Your task to perform on an android device: Go to Google Image 0: 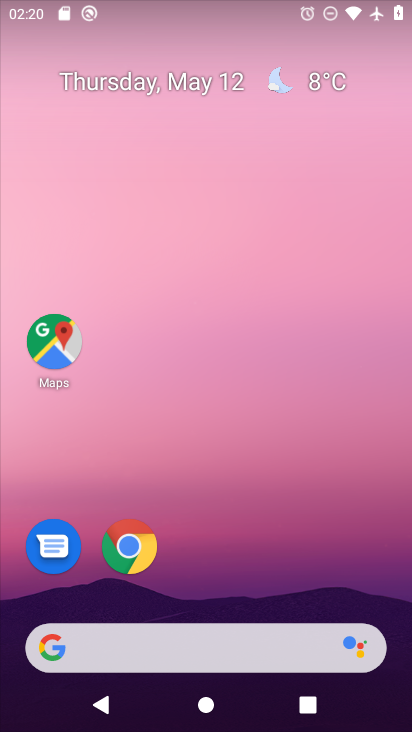
Step 0: drag from (194, 591) to (326, 159)
Your task to perform on an android device: Go to Google Image 1: 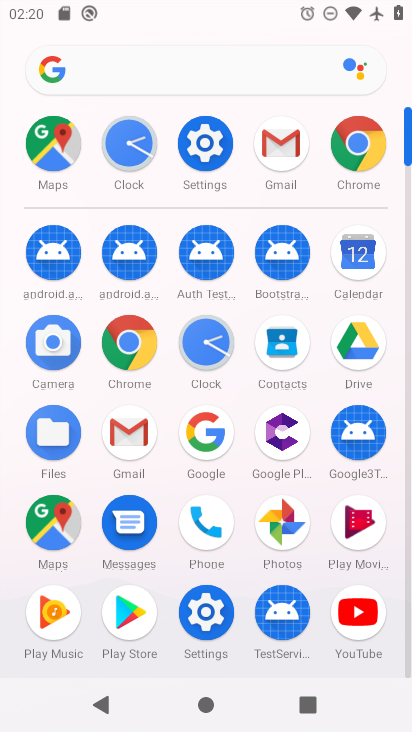
Step 1: click (213, 437)
Your task to perform on an android device: Go to Google Image 2: 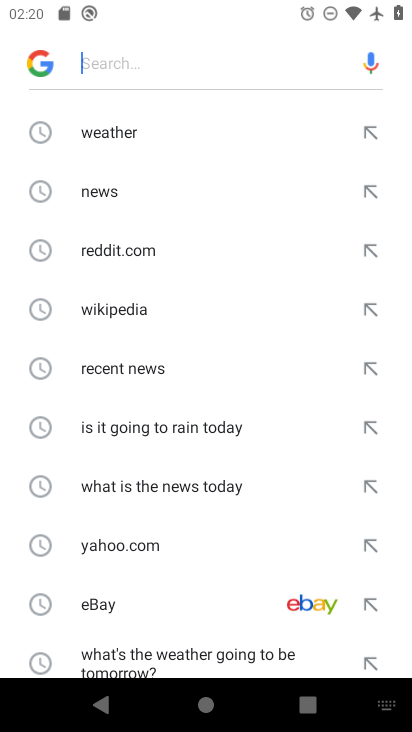
Step 2: task complete